Your task to perform on an android device: make emails show in primary in the gmail app Image 0: 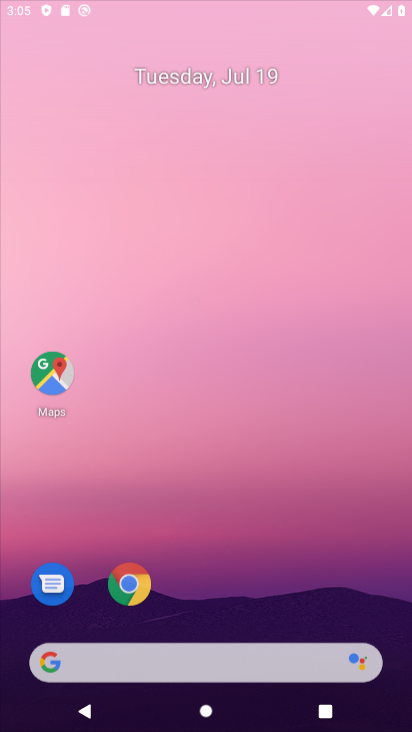
Step 0: click (209, 47)
Your task to perform on an android device: make emails show in primary in the gmail app Image 1: 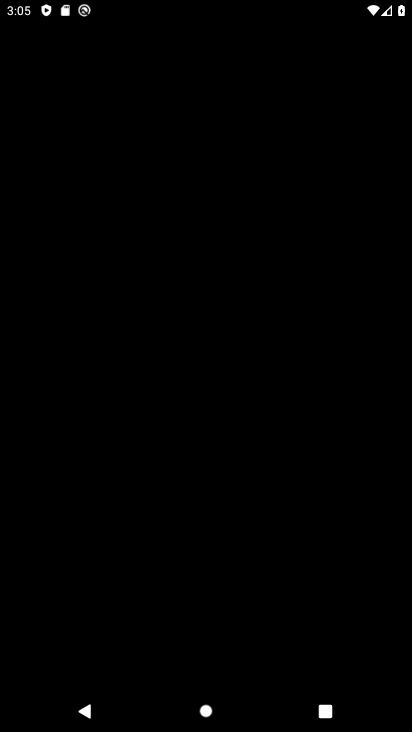
Step 1: press home button
Your task to perform on an android device: make emails show in primary in the gmail app Image 2: 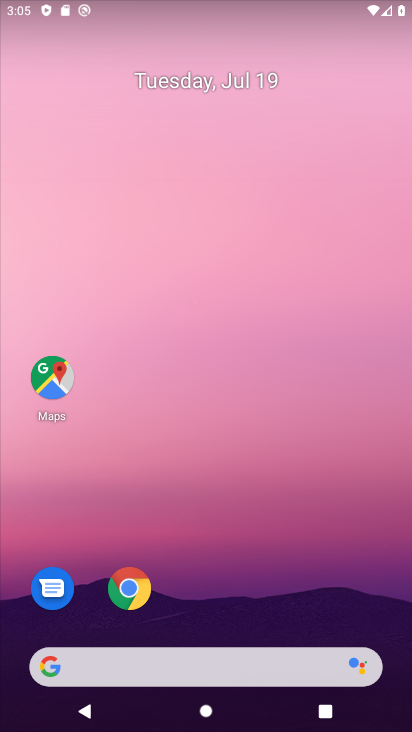
Step 2: drag from (208, 595) to (226, 91)
Your task to perform on an android device: make emails show in primary in the gmail app Image 3: 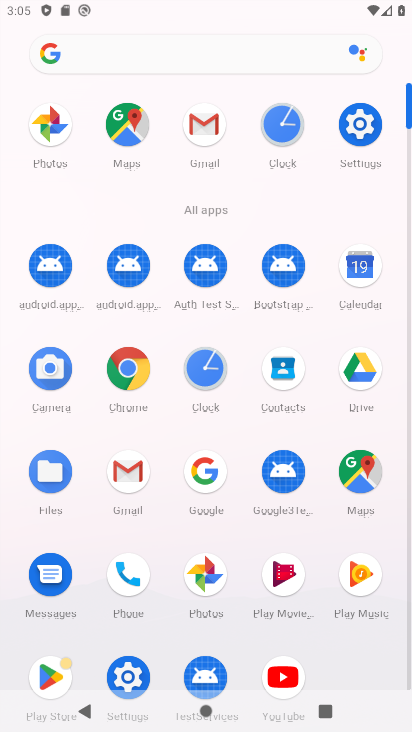
Step 3: click (210, 125)
Your task to perform on an android device: make emails show in primary in the gmail app Image 4: 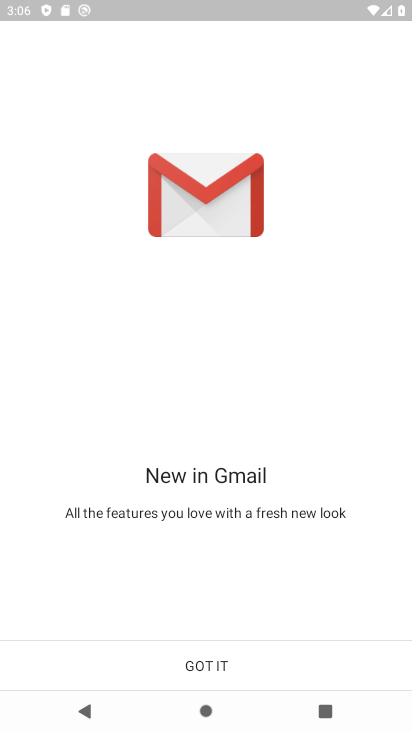
Step 4: click (235, 665)
Your task to perform on an android device: make emails show in primary in the gmail app Image 5: 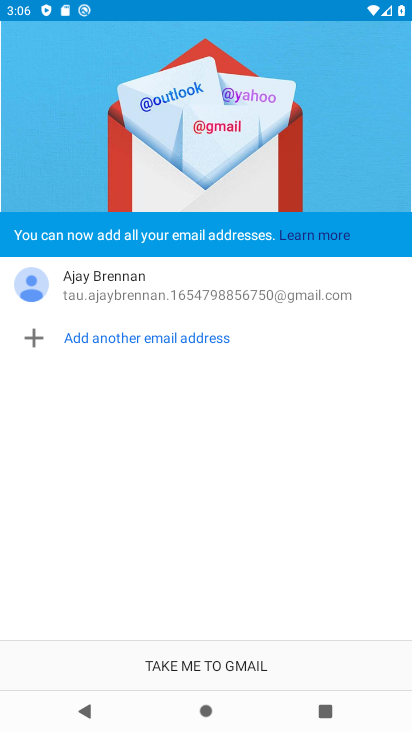
Step 5: click (235, 665)
Your task to perform on an android device: make emails show in primary in the gmail app Image 6: 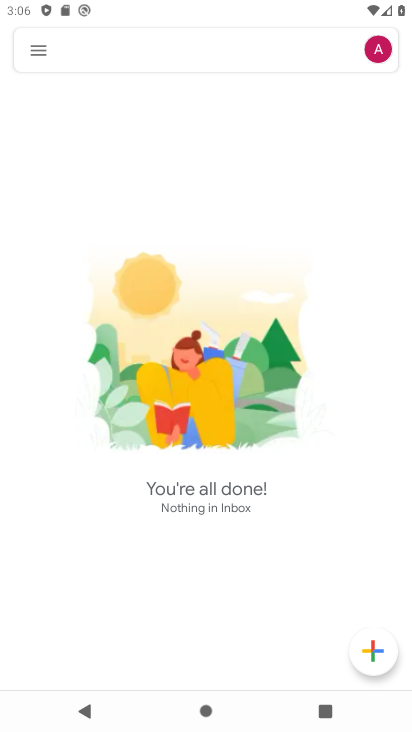
Step 6: click (44, 53)
Your task to perform on an android device: make emails show in primary in the gmail app Image 7: 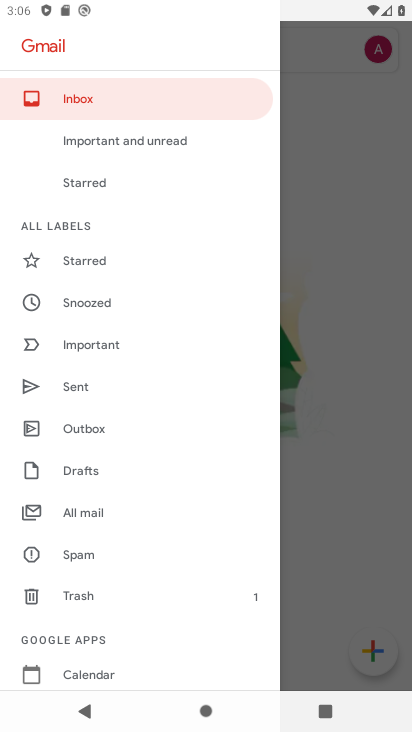
Step 7: drag from (110, 617) to (162, 349)
Your task to perform on an android device: make emails show in primary in the gmail app Image 8: 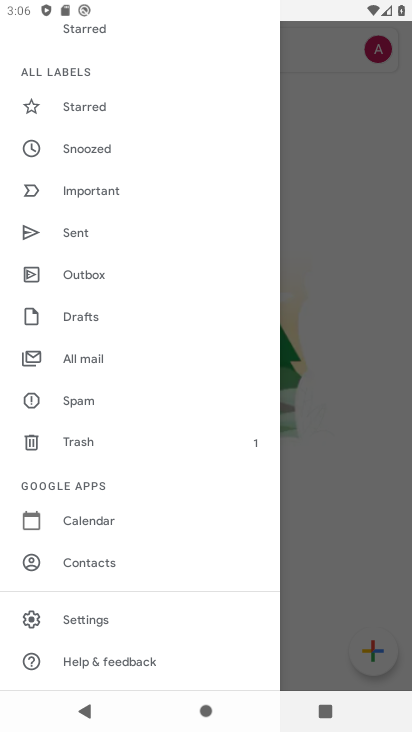
Step 8: click (104, 631)
Your task to perform on an android device: make emails show in primary in the gmail app Image 9: 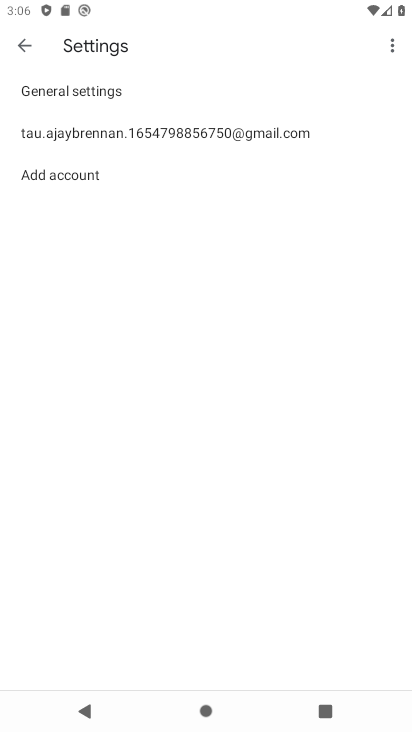
Step 9: click (132, 132)
Your task to perform on an android device: make emails show in primary in the gmail app Image 10: 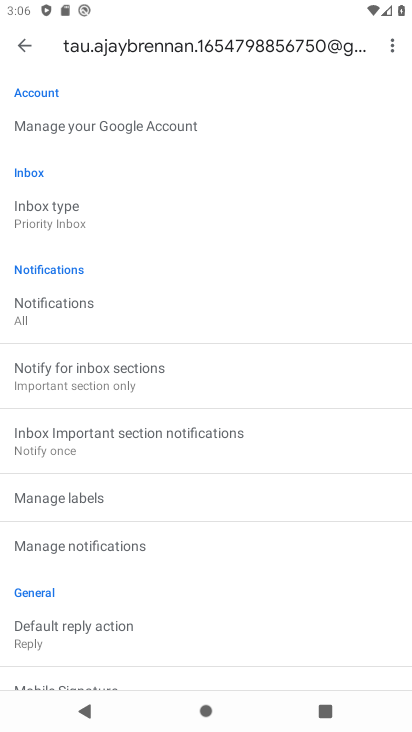
Step 10: click (88, 207)
Your task to perform on an android device: make emails show in primary in the gmail app Image 11: 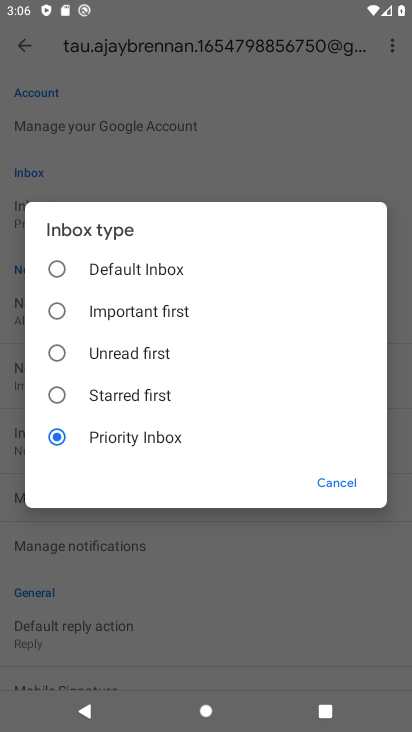
Step 11: click (125, 263)
Your task to perform on an android device: make emails show in primary in the gmail app Image 12: 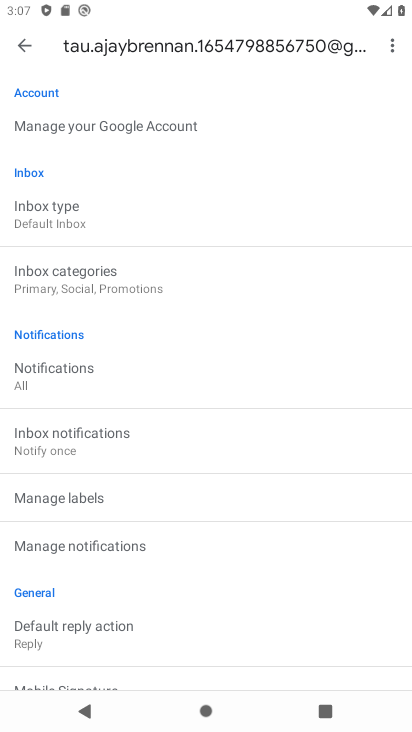
Step 12: task complete